Your task to perform on an android device: Open the calendar app, open the side menu, and click the "Day" option Image 0: 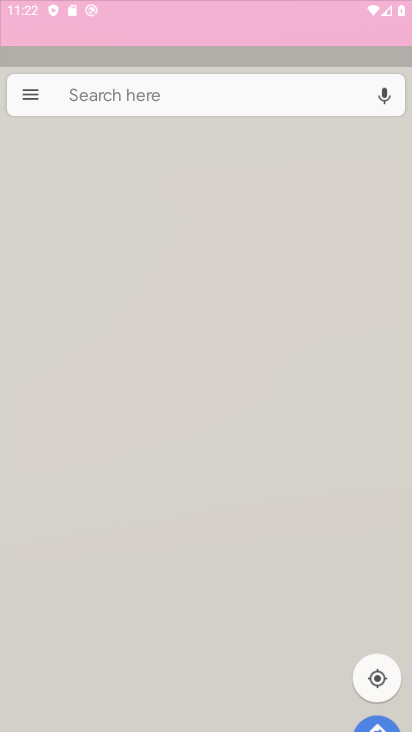
Step 0: press home button
Your task to perform on an android device: Open the calendar app, open the side menu, and click the "Day" option Image 1: 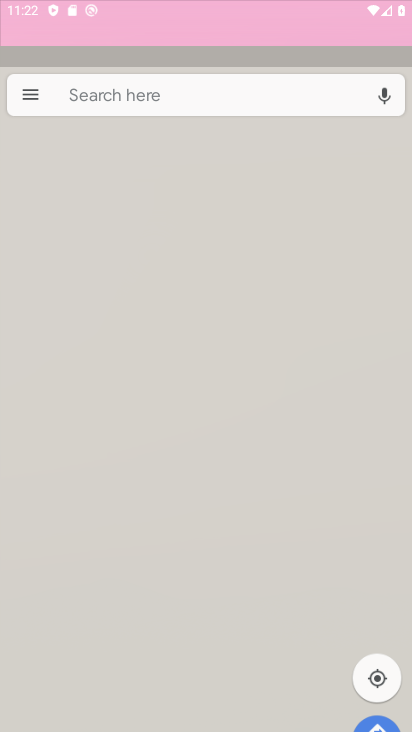
Step 1: click (235, 177)
Your task to perform on an android device: Open the calendar app, open the side menu, and click the "Day" option Image 2: 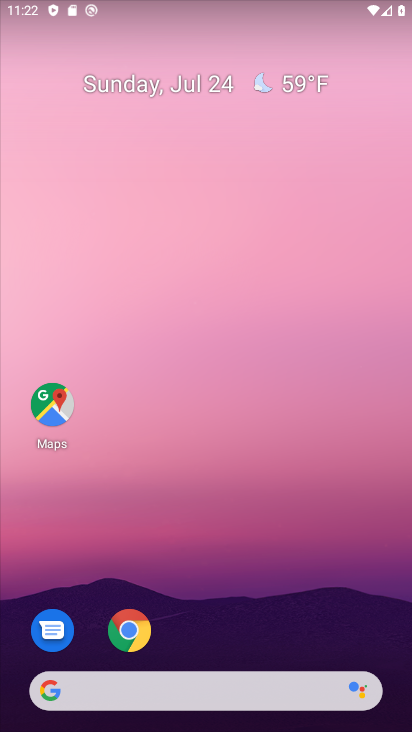
Step 2: drag from (235, 381) to (242, 175)
Your task to perform on an android device: Open the calendar app, open the side menu, and click the "Day" option Image 3: 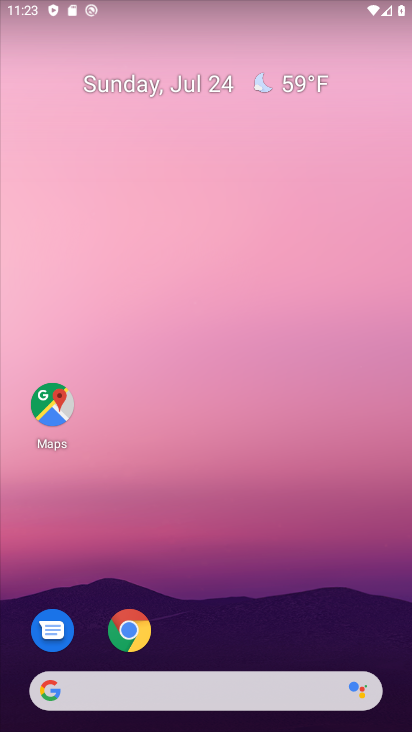
Step 3: drag from (249, 667) to (249, 129)
Your task to perform on an android device: Open the calendar app, open the side menu, and click the "Day" option Image 4: 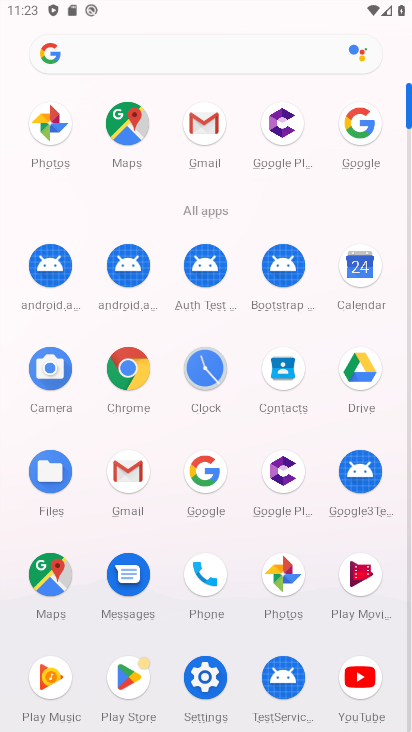
Step 4: click (358, 265)
Your task to perform on an android device: Open the calendar app, open the side menu, and click the "Day" option Image 5: 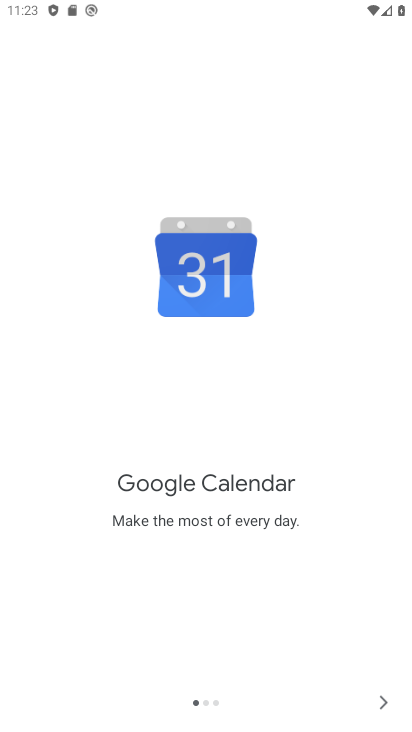
Step 5: click (378, 709)
Your task to perform on an android device: Open the calendar app, open the side menu, and click the "Day" option Image 6: 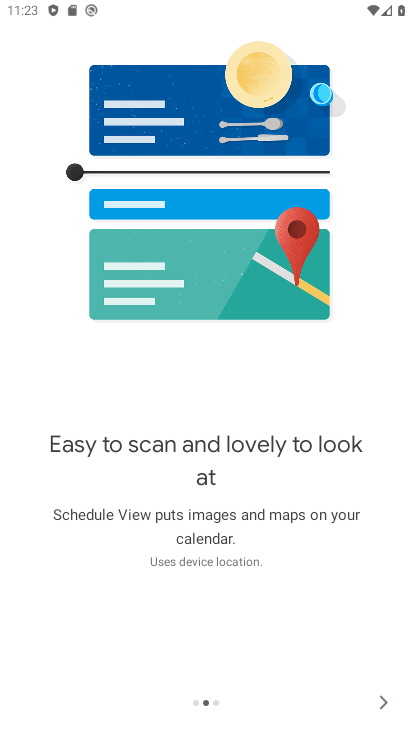
Step 6: click (378, 709)
Your task to perform on an android device: Open the calendar app, open the side menu, and click the "Day" option Image 7: 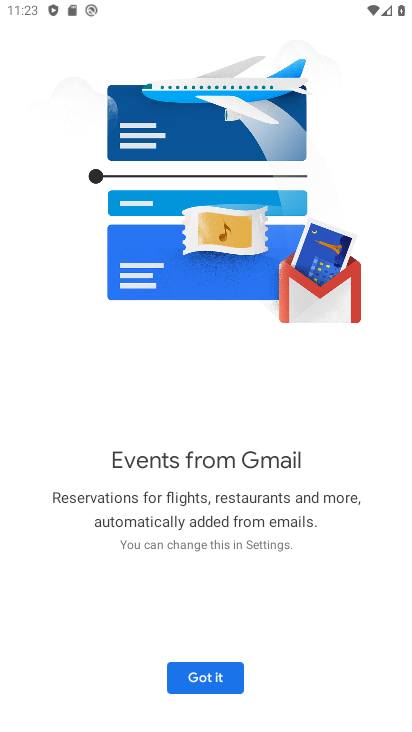
Step 7: click (190, 674)
Your task to perform on an android device: Open the calendar app, open the side menu, and click the "Day" option Image 8: 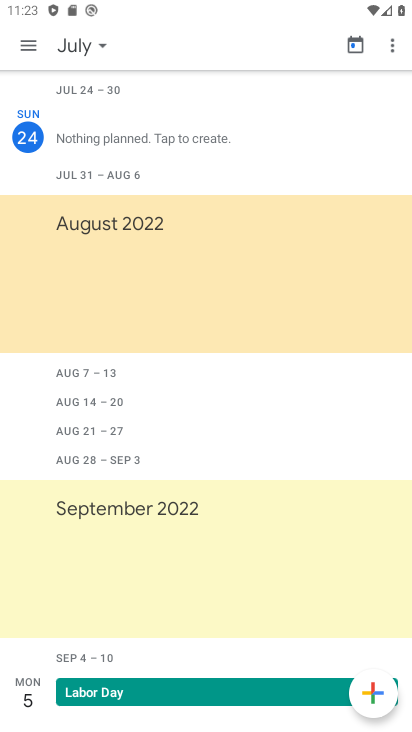
Step 8: click (28, 41)
Your task to perform on an android device: Open the calendar app, open the side menu, and click the "Day" option Image 9: 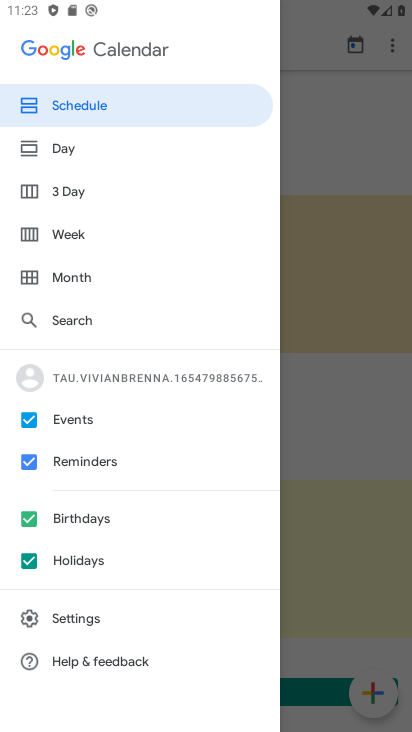
Step 9: click (64, 148)
Your task to perform on an android device: Open the calendar app, open the side menu, and click the "Day" option Image 10: 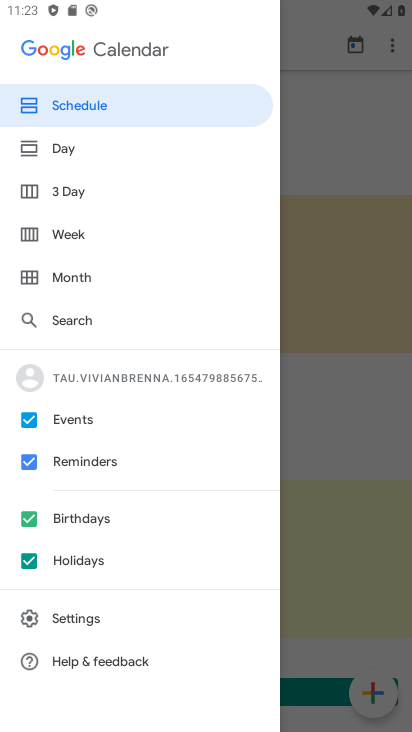
Step 10: click (91, 155)
Your task to perform on an android device: Open the calendar app, open the side menu, and click the "Day" option Image 11: 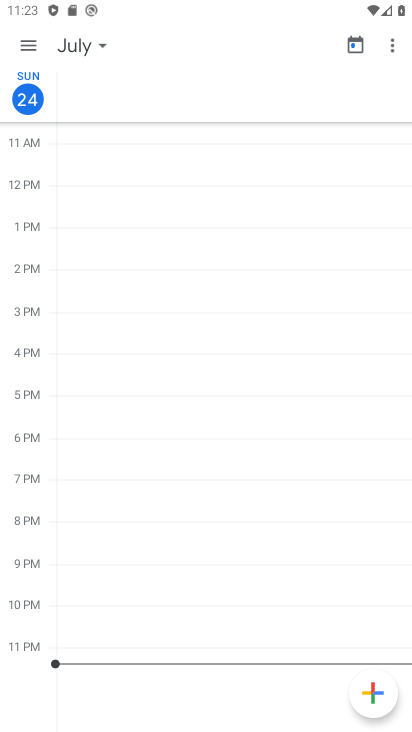
Step 11: task complete